Your task to perform on an android device: open the mobile data screen to see how much data has been used Image 0: 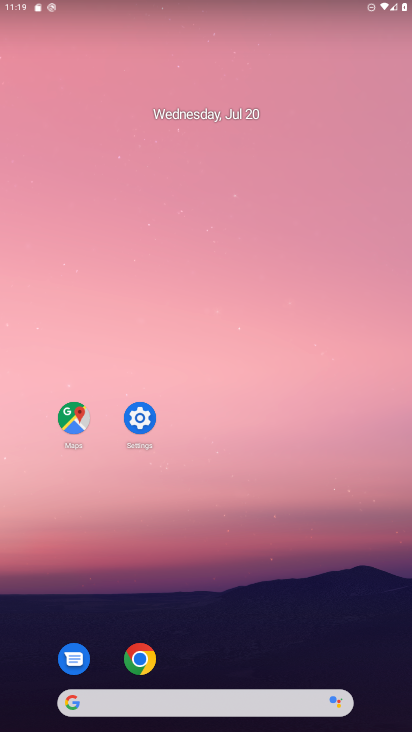
Step 0: click (135, 422)
Your task to perform on an android device: open the mobile data screen to see how much data has been used Image 1: 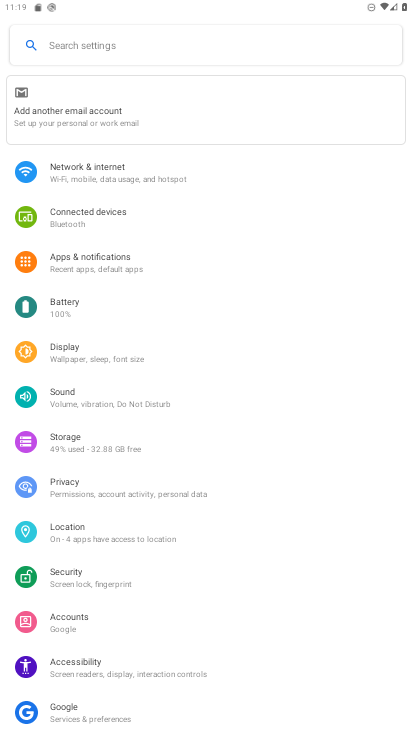
Step 1: click (104, 170)
Your task to perform on an android device: open the mobile data screen to see how much data has been used Image 2: 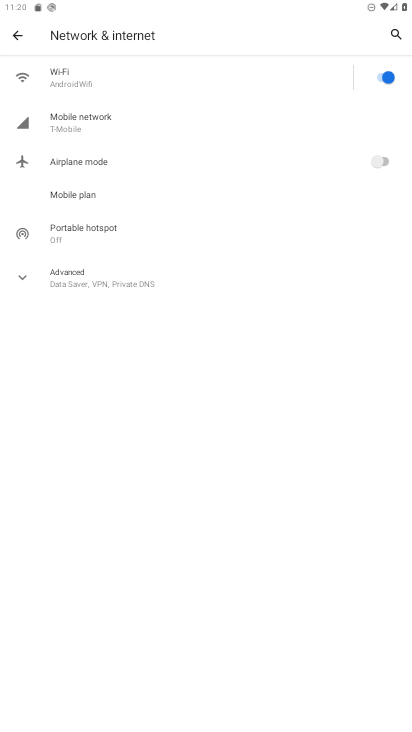
Step 2: click (81, 112)
Your task to perform on an android device: open the mobile data screen to see how much data has been used Image 3: 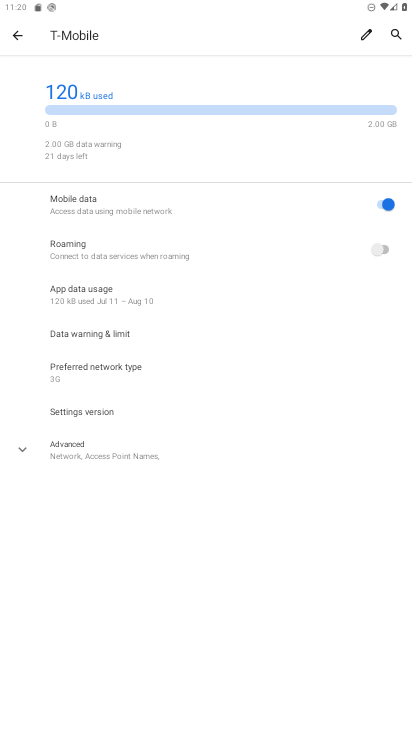
Step 3: task complete